Your task to perform on an android device: toggle pop-ups in chrome Image 0: 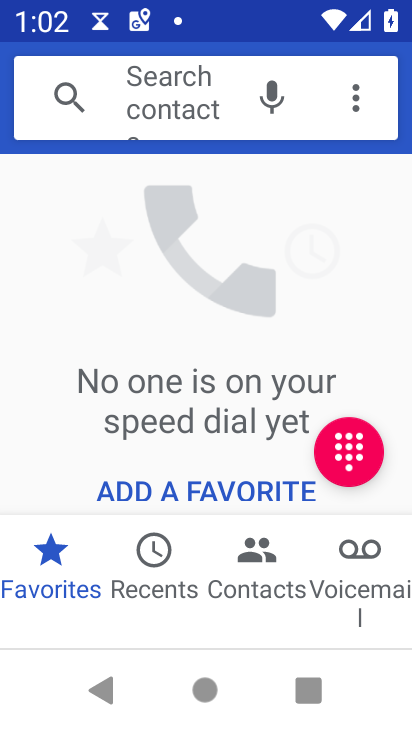
Step 0: press home button
Your task to perform on an android device: toggle pop-ups in chrome Image 1: 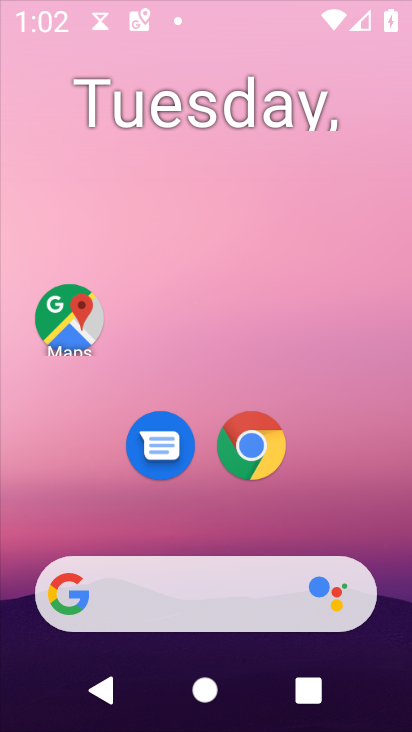
Step 1: drag from (289, 635) to (229, 15)
Your task to perform on an android device: toggle pop-ups in chrome Image 2: 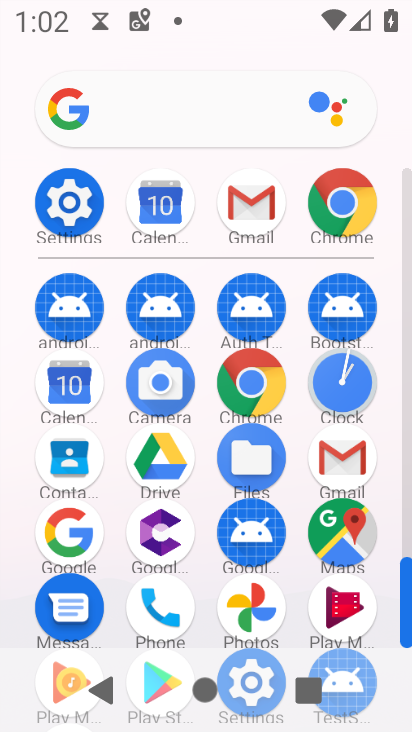
Step 2: click (271, 398)
Your task to perform on an android device: toggle pop-ups in chrome Image 3: 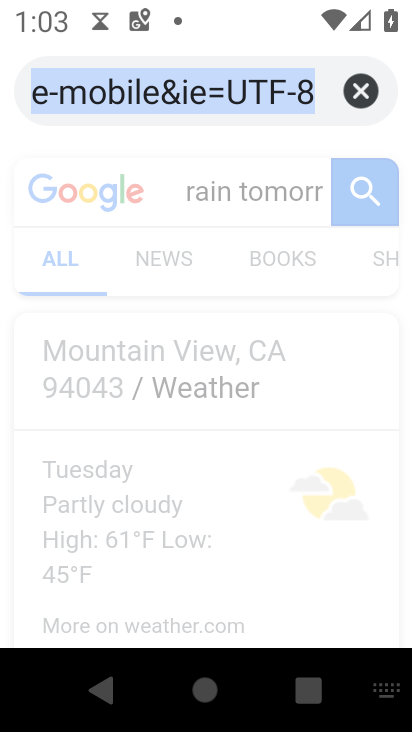
Step 3: click (368, 93)
Your task to perform on an android device: toggle pop-ups in chrome Image 4: 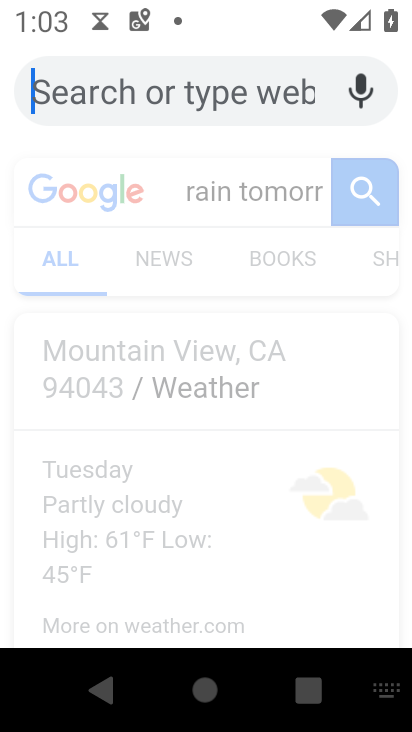
Step 4: press back button
Your task to perform on an android device: toggle pop-ups in chrome Image 5: 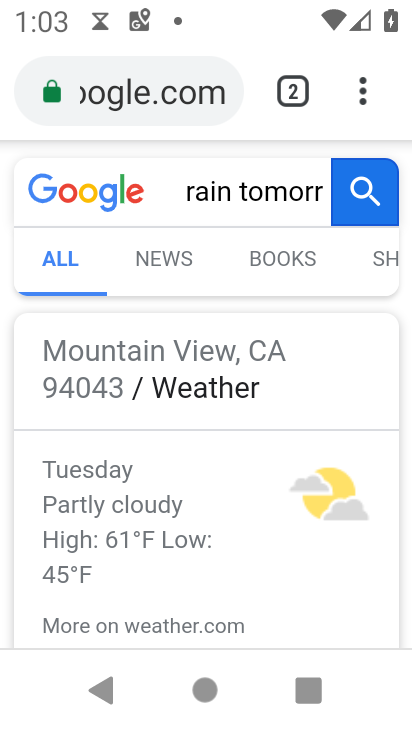
Step 5: drag from (371, 96) to (214, 480)
Your task to perform on an android device: toggle pop-ups in chrome Image 6: 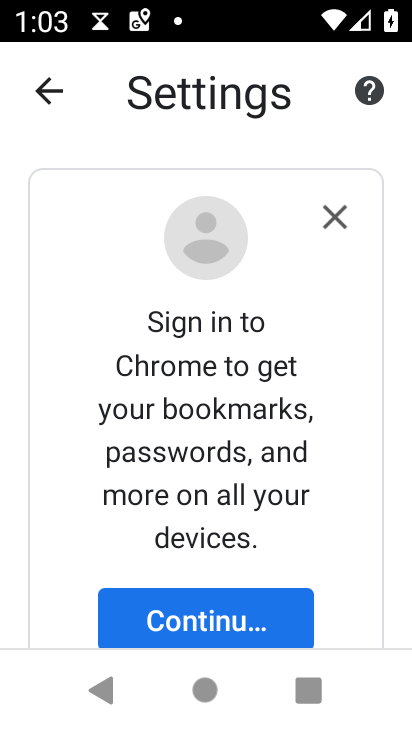
Step 6: drag from (268, 571) to (241, 69)
Your task to perform on an android device: toggle pop-ups in chrome Image 7: 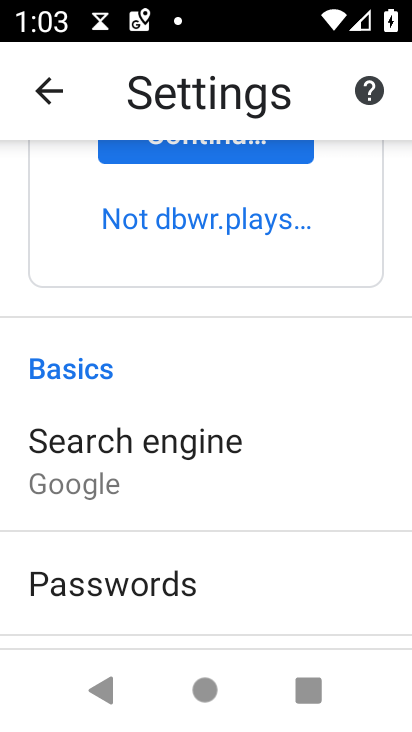
Step 7: drag from (292, 591) to (274, 62)
Your task to perform on an android device: toggle pop-ups in chrome Image 8: 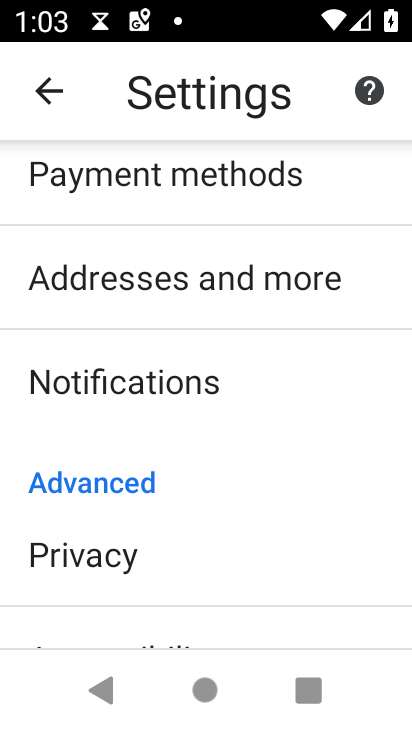
Step 8: drag from (247, 571) to (256, 118)
Your task to perform on an android device: toggle pop-ups in chrome Image 9: 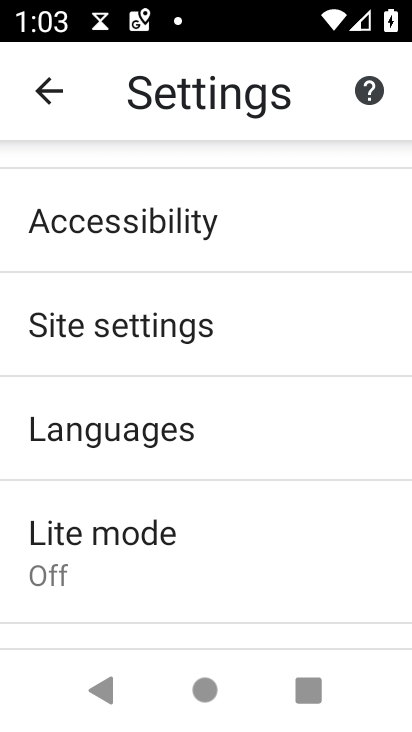
Step 9: click (247, 340)
Your task to perform on an android device: toggle pop-ups in chrome Image 10: 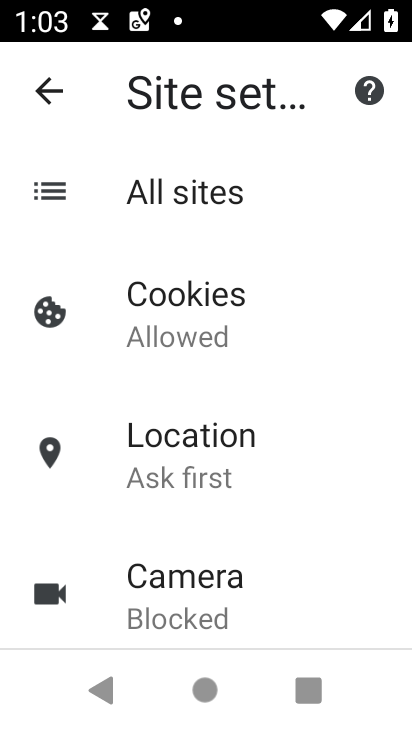
Step 10: drag from (207, 561) to (171, 9)
Your task to perform on an android device: toggle pop-ups in chrome Image 11: 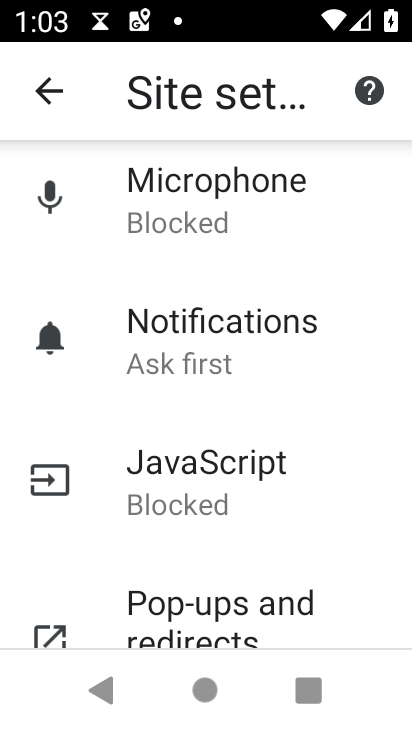
Step 11: click (222, 632)
Your task to perform on an android device: toggle pop-ups in chrome Image 12: 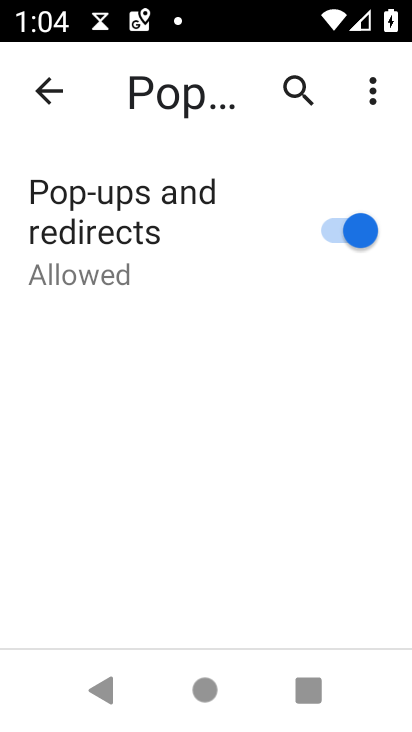
Step 12: task complete